Your task to perform on an android device: Open the stopwatch Image 0: 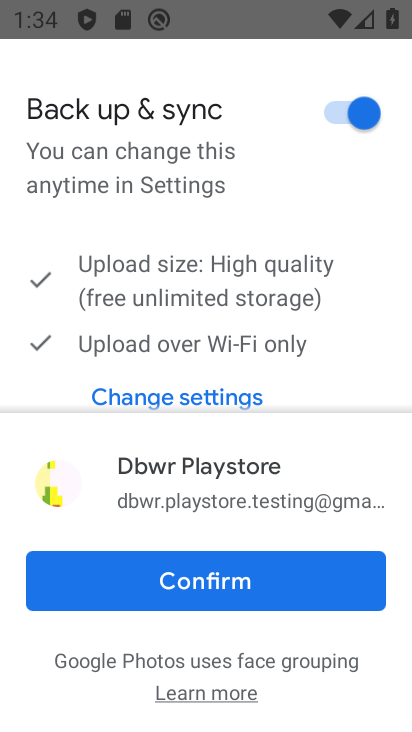
Step 0: press home button
Your task to perform on an android device: Open the stopwatch Image 1: 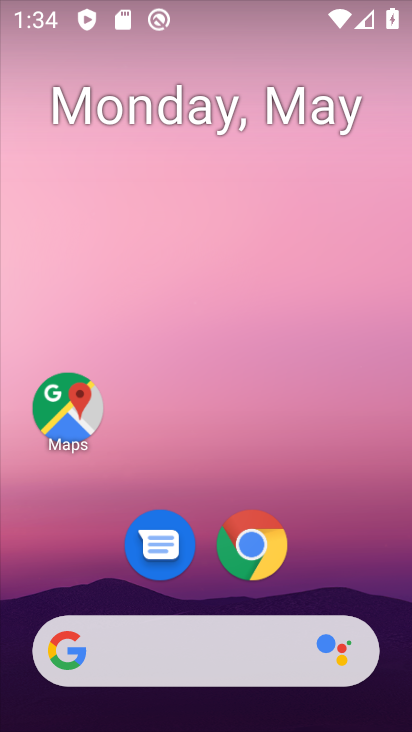
Step 1: drag from (180, 717) to (205, 12)
Your task to perform on an android device: Open the stopwatch Image 2: 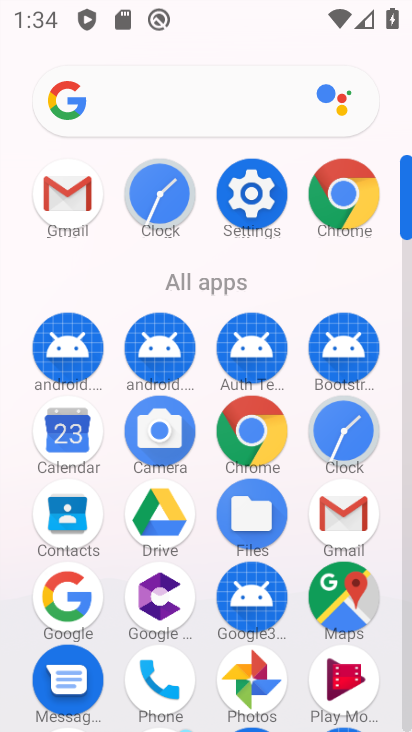
Step 2: click (167, 204)
Your task to perform on an android device: Open the stopwatch Image 3: 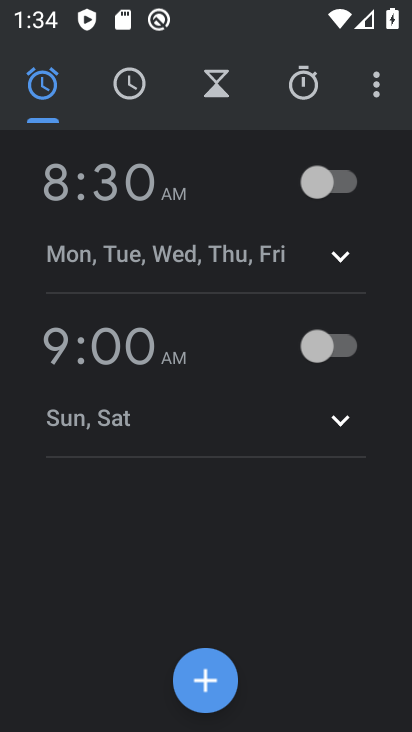
Step 3: click (305, 75)
Your task to perform on an android device: Open the stopwatch Image 4: 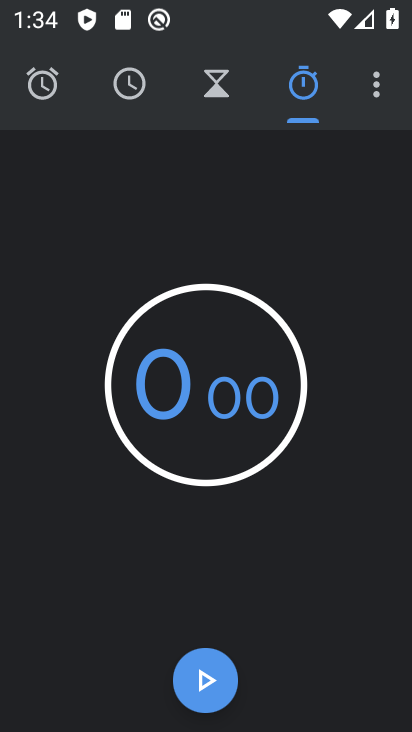
Step 4: task complete